Your task to perform on an android device: allow cookies in the chrome app Image 0: 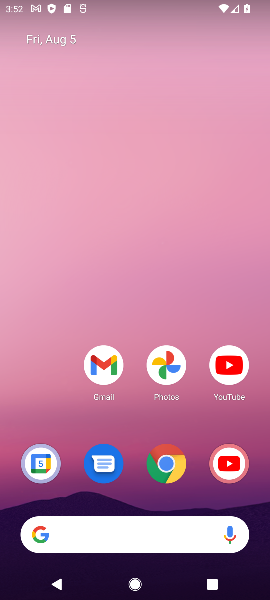
Step 0: drag from (141, 419) to (139, 176)
Your task to perform on an android device: allow cookies in the chrome app Image 1: 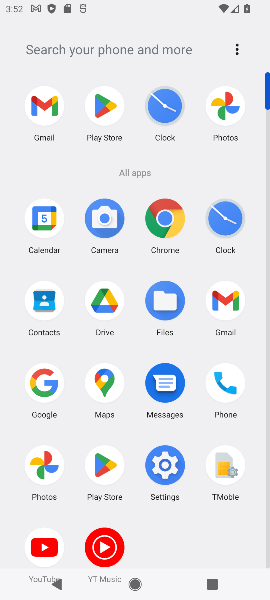
Step 1: click (158, 216)
Your task to perform on an android device: allow cookies in the chrome app Image 2: 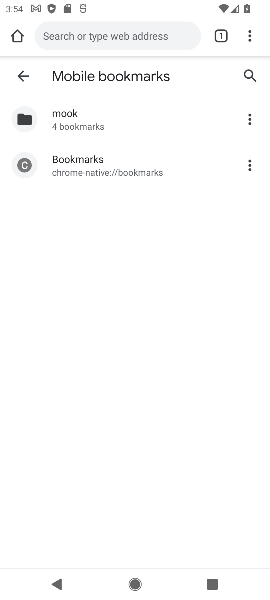
Step 2: drag from (151, 408) to (154, 278)
Your task to perform on an android device: allow cookies in the chrome app Image 3: 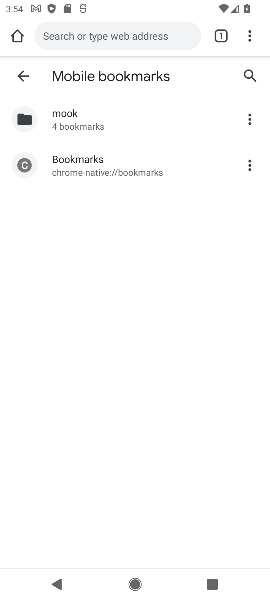
Step 3: drag from (245, 34) to (137, 331)
Your task to perform on an android device: allow cookies in the chrome app Image 4: 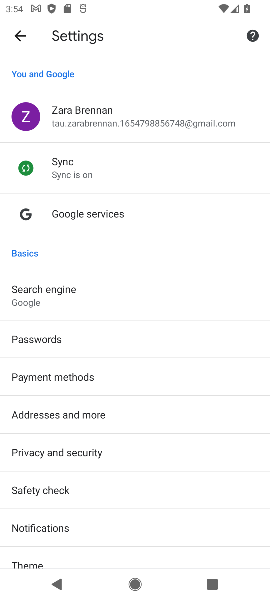
Step 4: drag from (57, 480) to (95, 210)
Your task to perform on an android device: allow cookies in the chrome app Image 5: 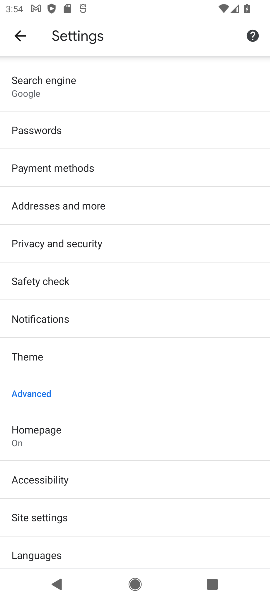
Step 5: click (40, 512)
Your task to perform on an android device: allow cookies in the chrome app Image 6: 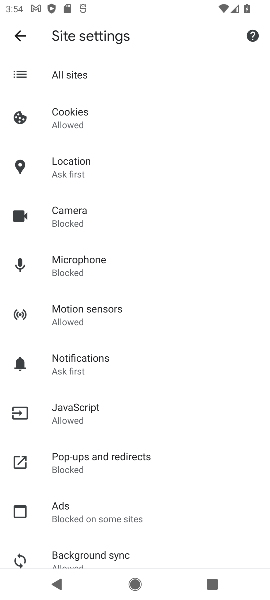
Step 6: click (62, 103)
Your task to perform on an android device: allow cookies in the chrome app Image 7: 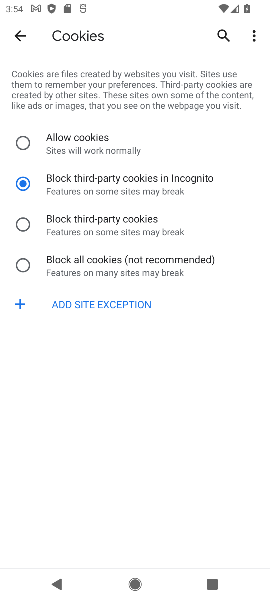
Step 7: drag from (99, 435) to (108, 307)
Your task to perform on an android device: allow cookies in the chrome app Image 8: 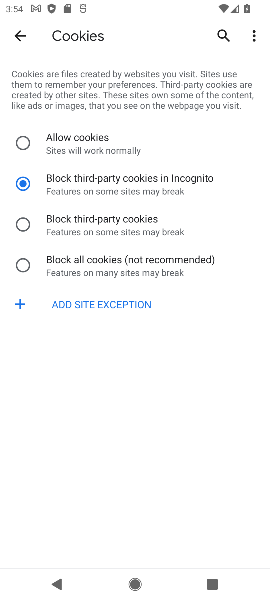
Step 8: press home button
Your task to perform on an android device: allow cookies in the chrome app Image 9: 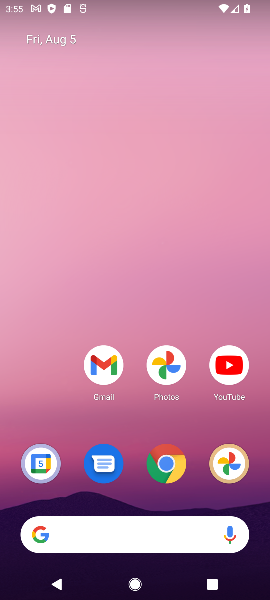
Step 9: drag from (128, 475) to (146, 202)
Your task to perform on an android device: allow cookies in the chrome app Image 10: 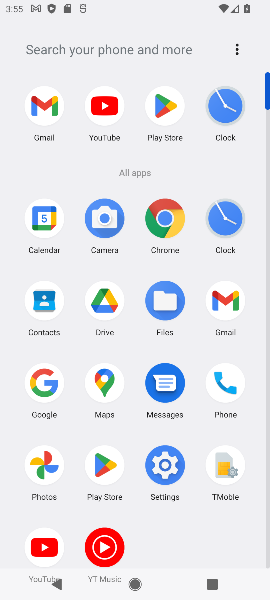
Step 10: click (162, 216)
Your task to perform on an android device: allow cookies in the chrome app Image 11: 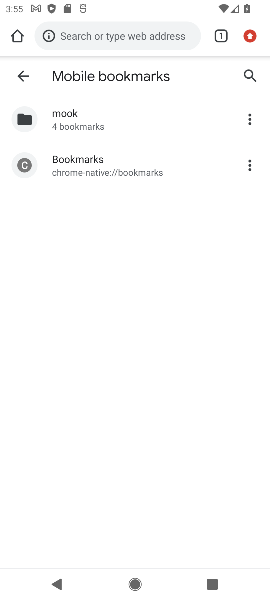
Step 11: click (254, 32)
Your task to perform on an android device: allow cookies in the chrome app Image 12: 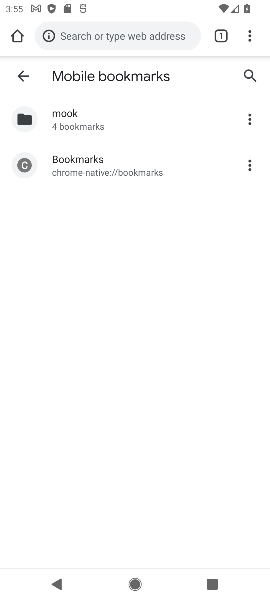
Step 12: drag from (253, 33) to (147, 380)
Your task to perform on an android device: allow cookies in the chrome app Image 13: 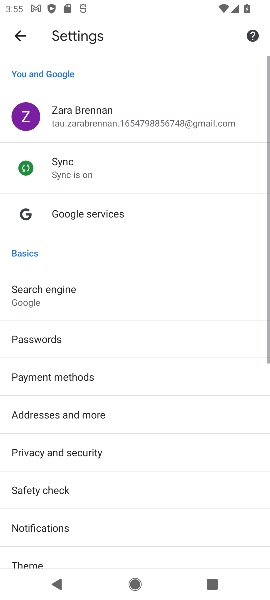
Step 13: drag from (81, 455) to (125, 198)
Your task to perform on an android device: allow cookies in the chrome app Image 14: 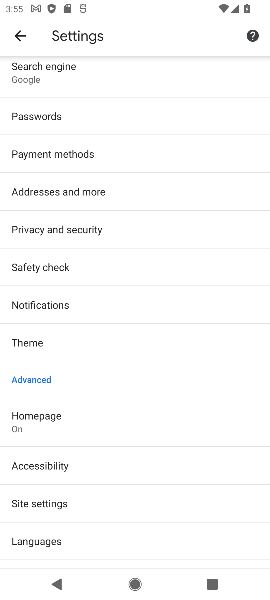
Step 14: click (51, 497)
Your task to perform on an android device: allow cookies in the chrome app Image 15: 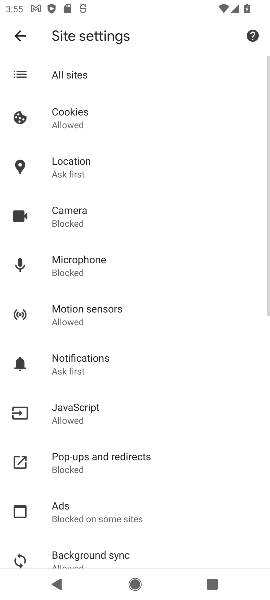
Step 15: click (129, 116)
Your task to perform on an android device: allow cookies in the chrome app Image 16: 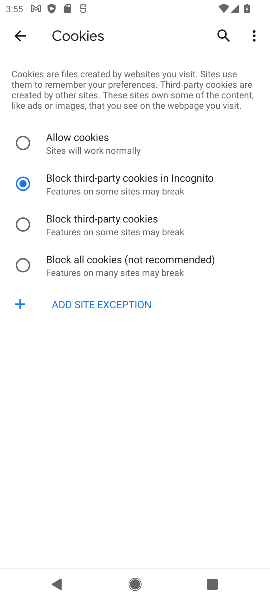
Step 16: task complete